Your task to perform on an android device: Open Reddit.com Image 0: 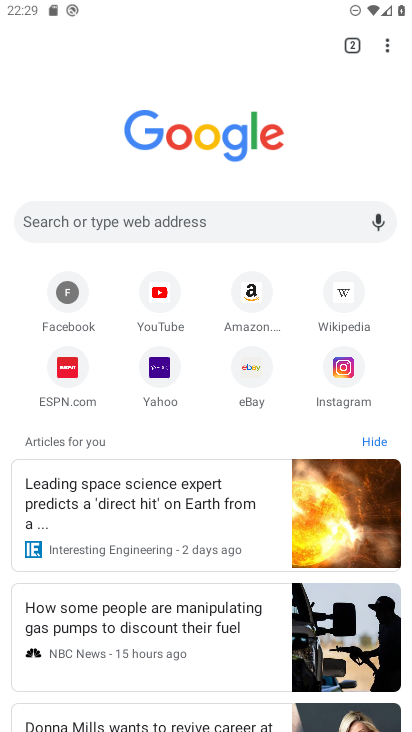
Step 0: click (96, 219)
Your task to perform on an android device: Open Reddit.com Image 1: 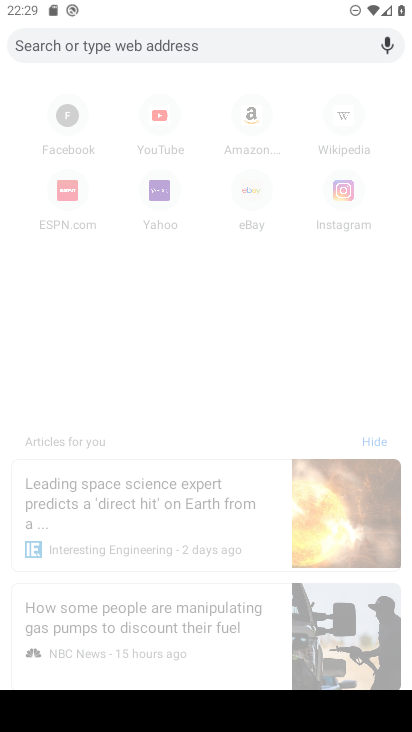
Step 1: type "Reddit.com"
Your task to perform on an android device: Open Reddit.com Image 2: 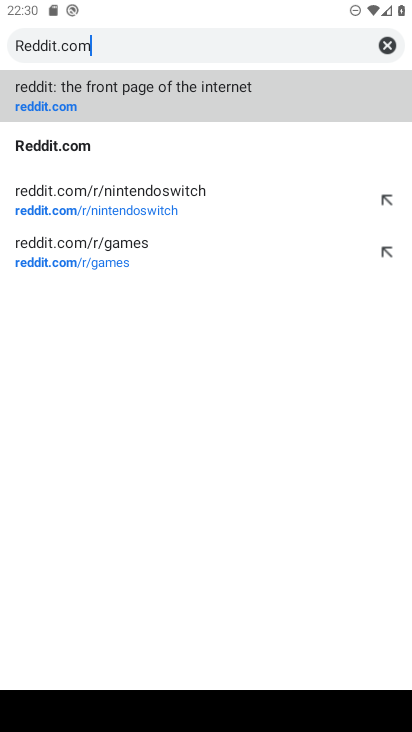
Step 2: click (59, 138)
Your task to perform on an android device: Open Reddit.com Image 3: 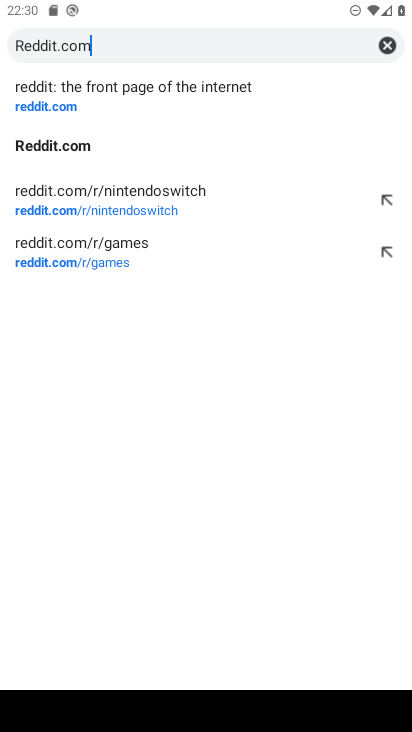
Step 3: task complete